Your task to perform on an android device: Go to ESPN.com Image 0: 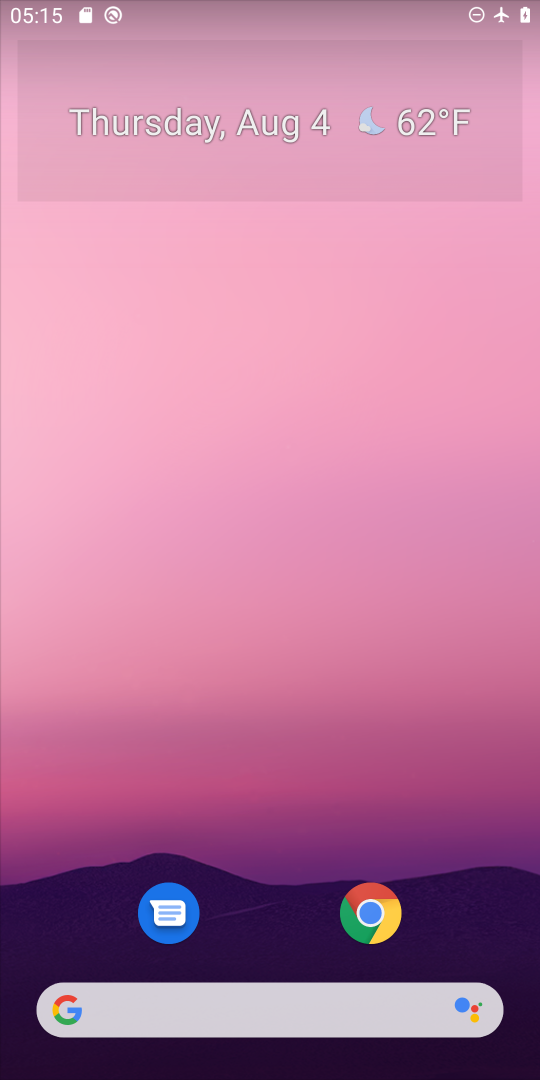
Step 0: drag from (243, 1001) to (364, 6)
Your task to perform on an android device: Go to ESPN.com Image 1: 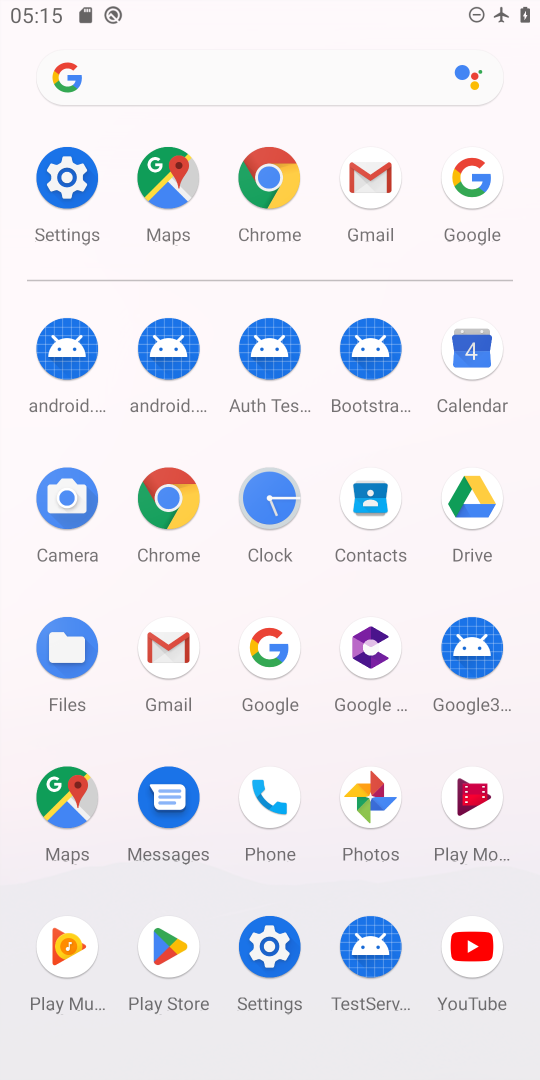
Step 1: click (181, 484)
Your task to perform on an android device: Go to ESPN.com Image 2: 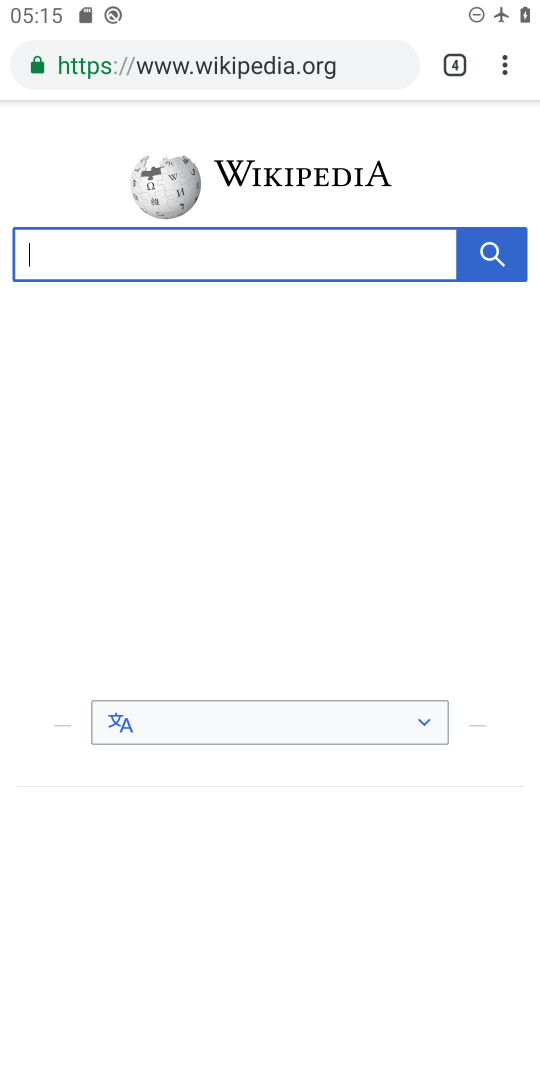
Step 2: drag from (493, 59) to (406, 134)
Your task to perform on an android device: Go to ESPN.com Image 3: 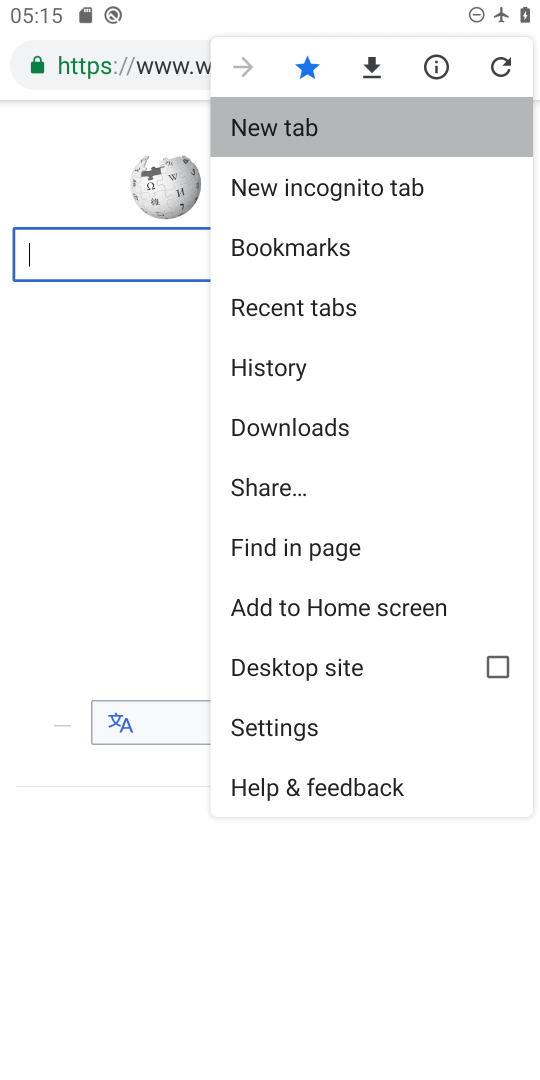
Step 3: click (403, 138)
Your task to perform on an android device: Go to ESPN.com Image 4: 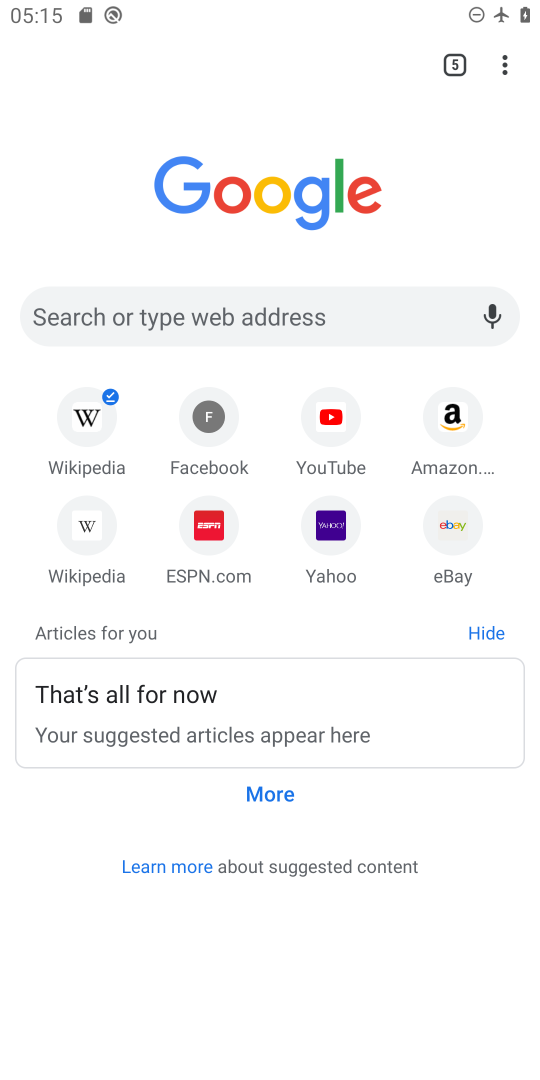
Step 4: click (221, 533)
Your task to perform on an android device: Go to ESPN.com Image 5: 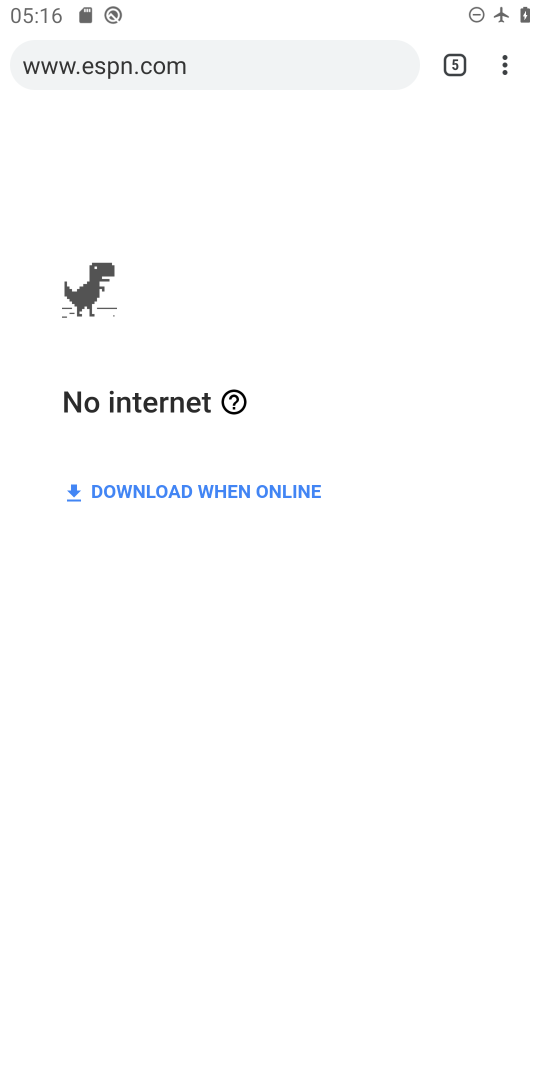
Step 5: task complete